Your task to perform on an android device: Turn off the flashlight Image 0: 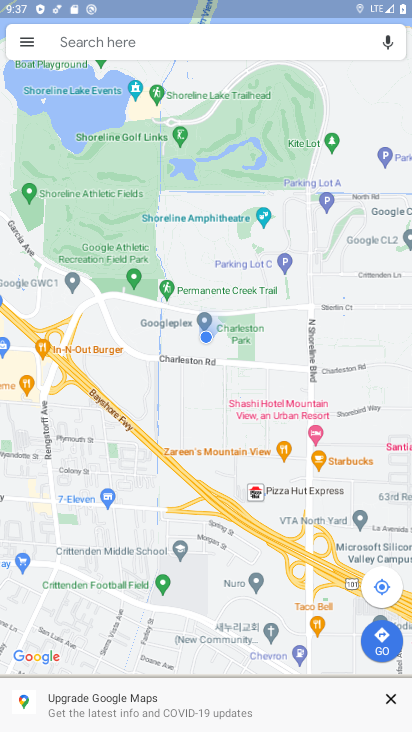
Step 0: press home button
Your task to perform on an android device: Turn off the flashlight Image 1: 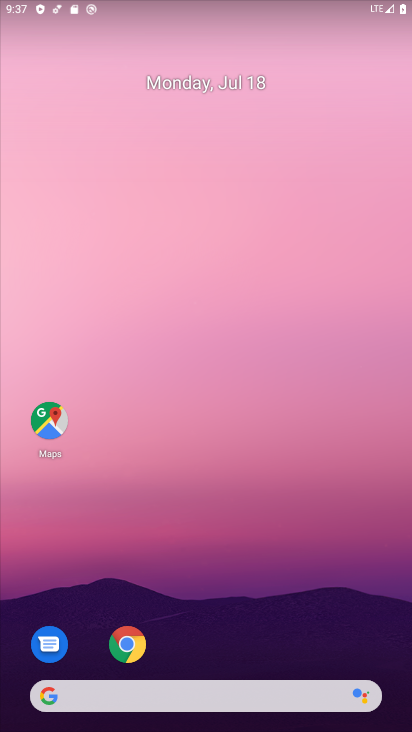
Step 1: task complete